Your task to perform on an android device: turn on airplane mode Image 0: 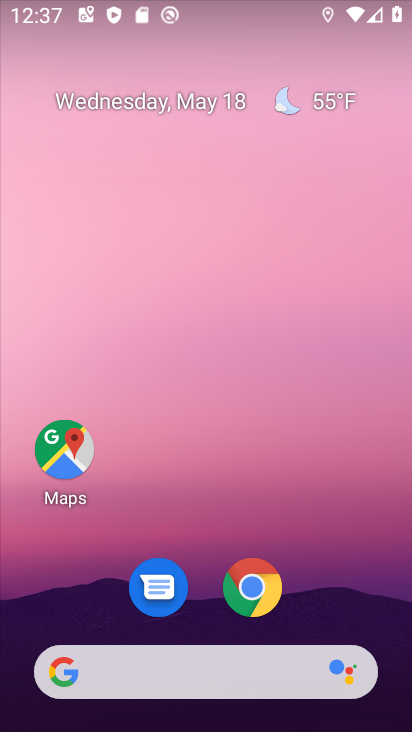
Step 0: drag from (299, 603) to (264, 79)
Your task to perform on an android device: turn on airplane mode Image 1: 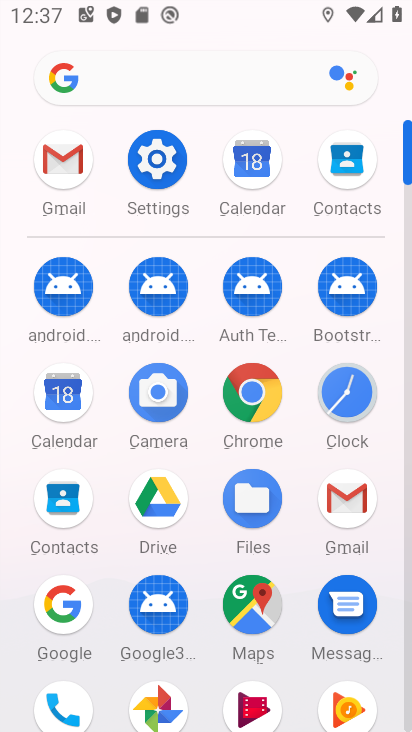
Step 1: click (157, 174)
Your task to perform on an android device: turn on airplane mode Image 2: 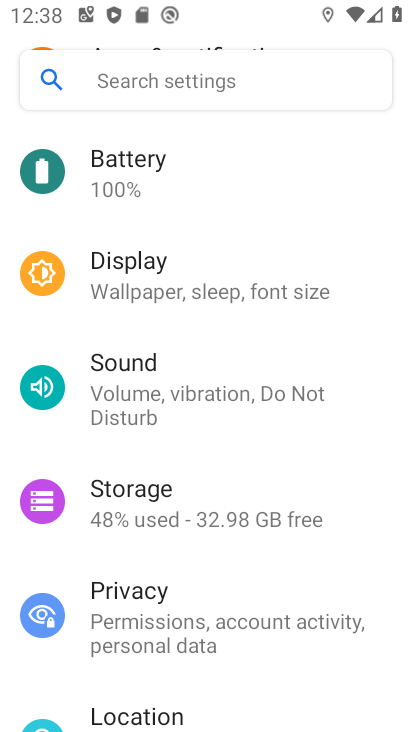
Step 2: drag from (179, 176) to (156, 471)
Your task to perform on an android device: turn on airplane mode Image 3: 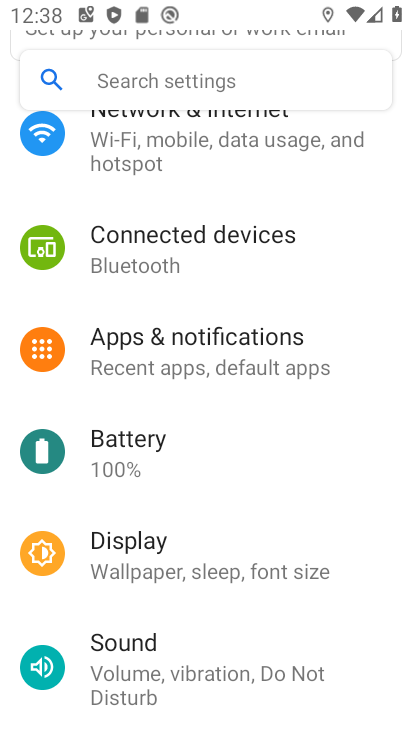
Step 3: click (202, 155)
Your task to perform on an android device: turn on airplane mode Image 4: 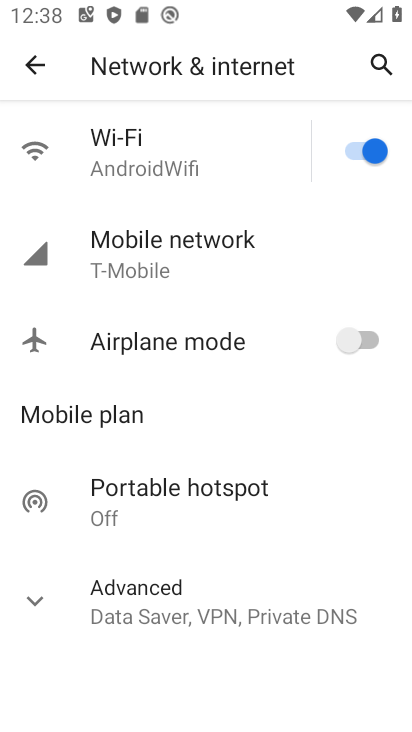
Step 4: click (366, 342)
Your task to perform on an android device: turn on airplane mode Image 5: 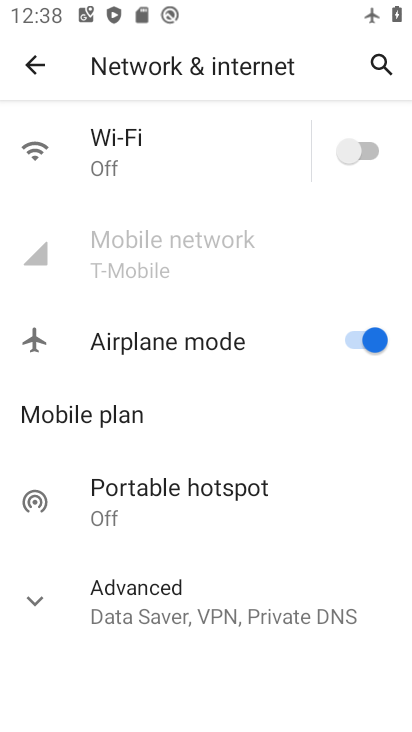
Step 5: task complete